Your task to perform on an android device: set an alarm Image 0: 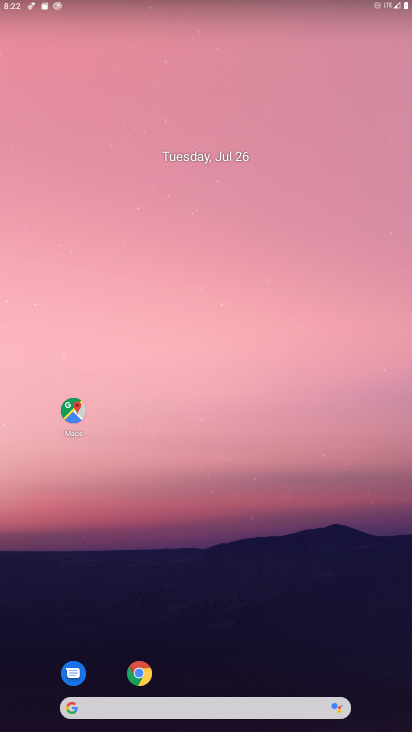
Step 0: drag from (357, 616) to (261, 63)
Your task to perform on an android device: set an alarm Image 1: 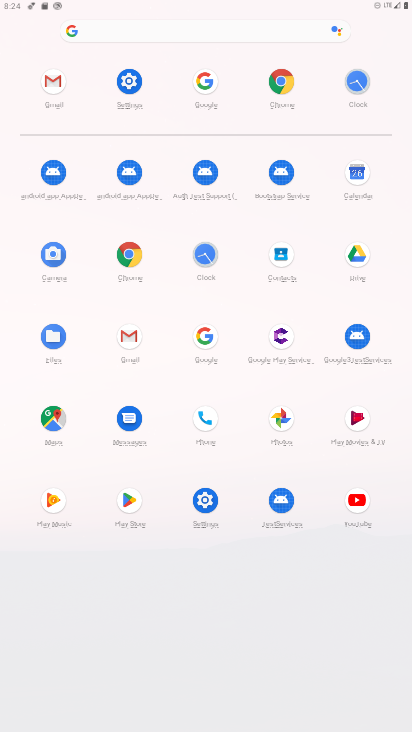
Step 1: click (198, 249)
Your task to perform on an android device: set an alarm Image 2: 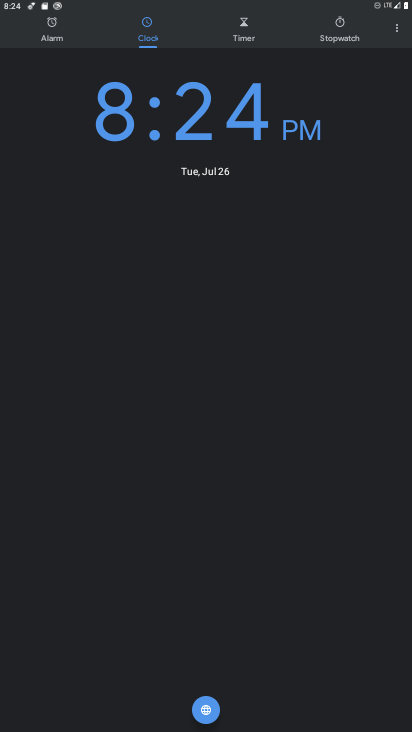
Step 2: click (49, 19)
Your task to perform on an android device: set an alarm Image 3: 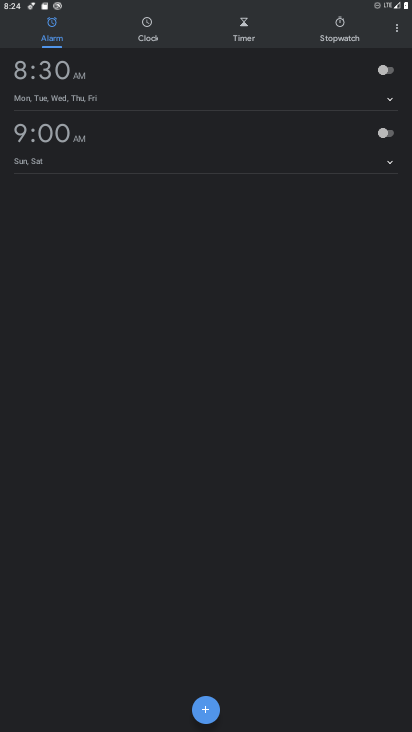
Step 3: click (390, 74)
Your task to perform on an android device: set an alarm Image 4: 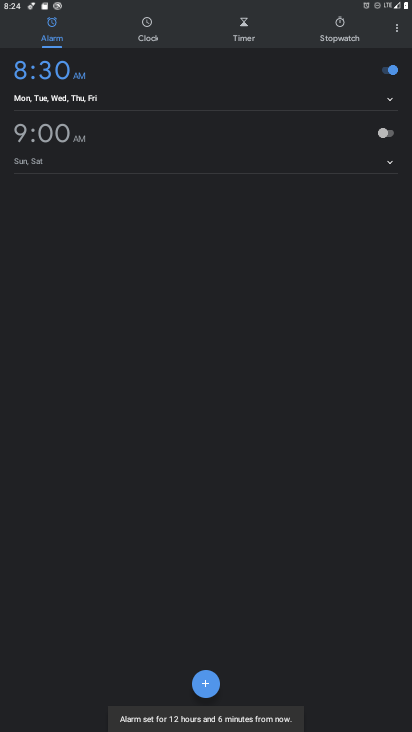
Step 4: task complete